Your task to perform on an android device: Go to network settings Image 0: 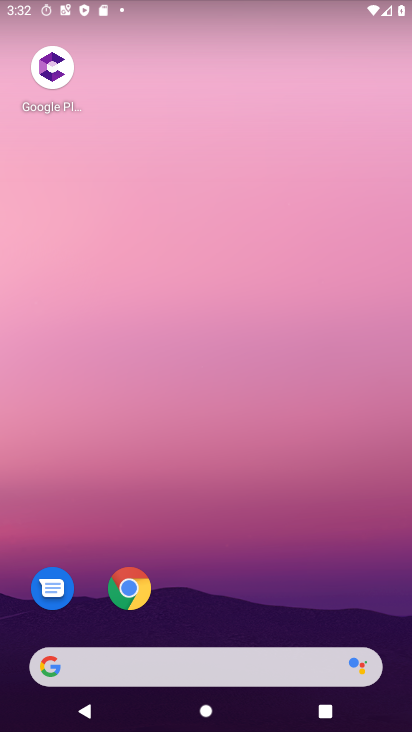
Step 0: drag from (228, 626) to (341, 45)
Your task to perform on an android device: Go to network settings Image 1: 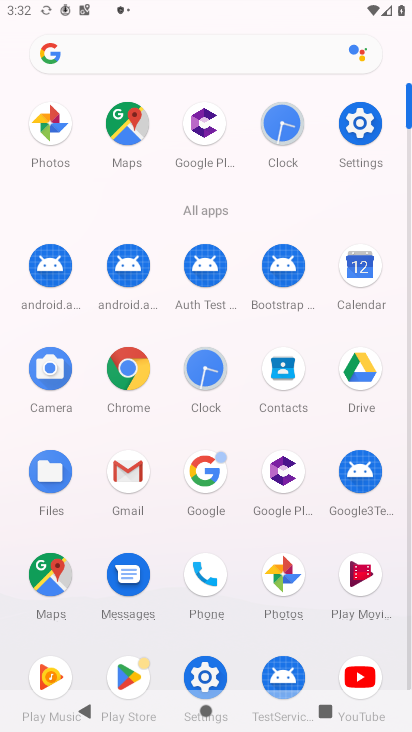
Step 1: click (363, 126)
Your task to perform on an android device: Go to network settings Image 2: 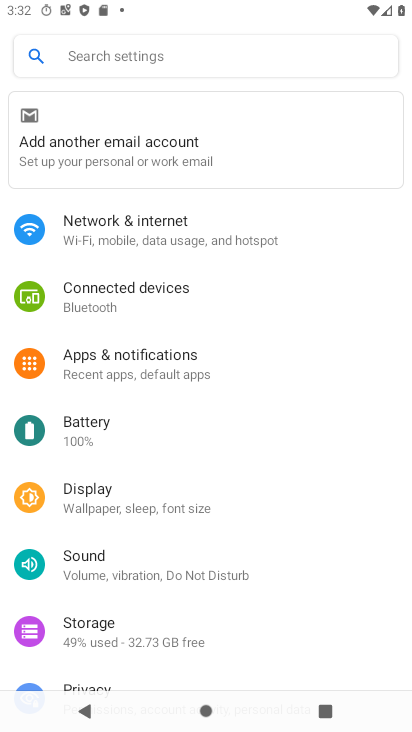
Step 2: click (139, 233)
Your task to perform on an android device: Go to network settings Image 3: 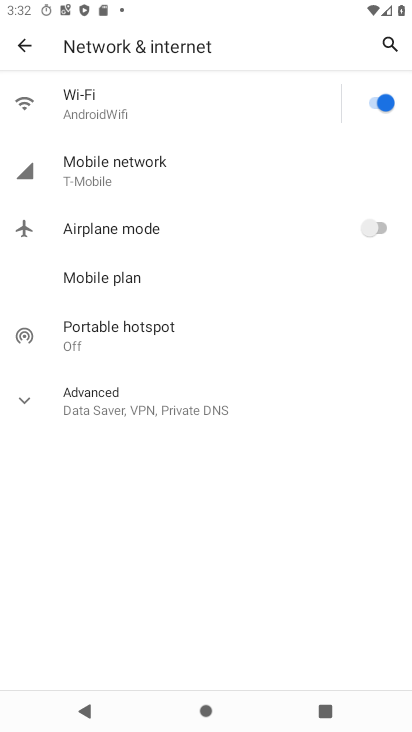
Step 3: click (149, 177)
Your task to perform on an android device: Go to network settings Image 4: 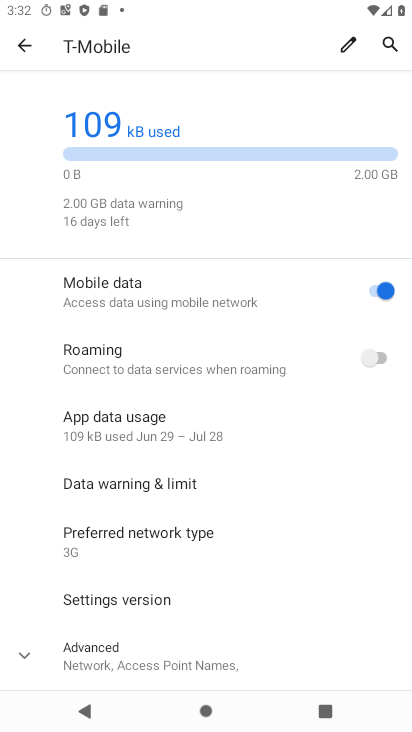
Step 4: task complete